Your task to perform on an android device: Go to ESPN.com Image 0: 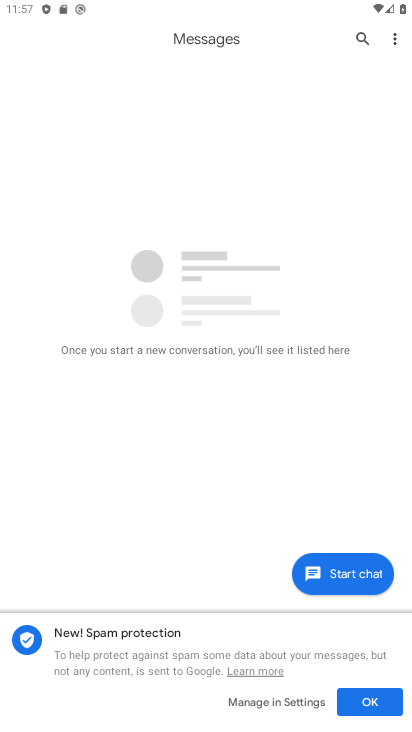
Step 0: press home button
Your task to perform on an android device: Go to ESPN.com Image 1: 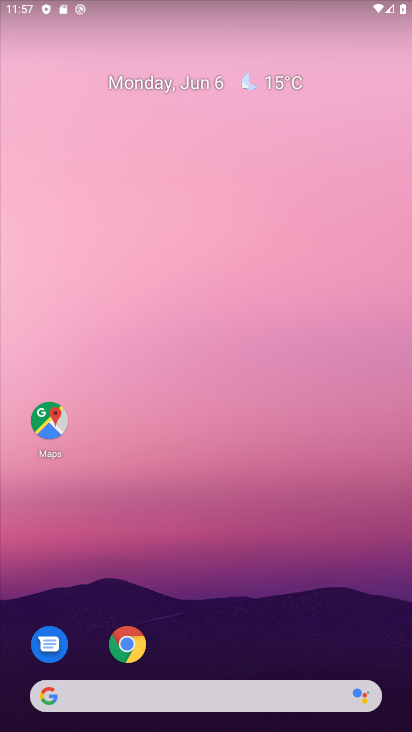
Step 1: drag from (279, 596) to (261, 95)
Your task to perform on an android device: Go to ESPN.com Image 2: 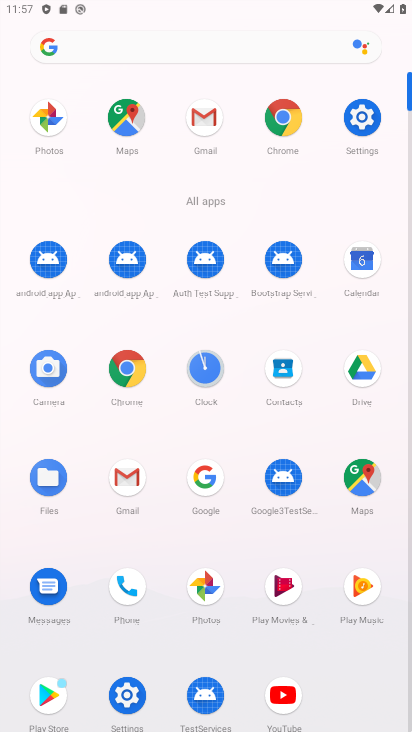
Step 2: click (284, 123)
Your task to perform on an android device: Go to ESPN.com Image 3: 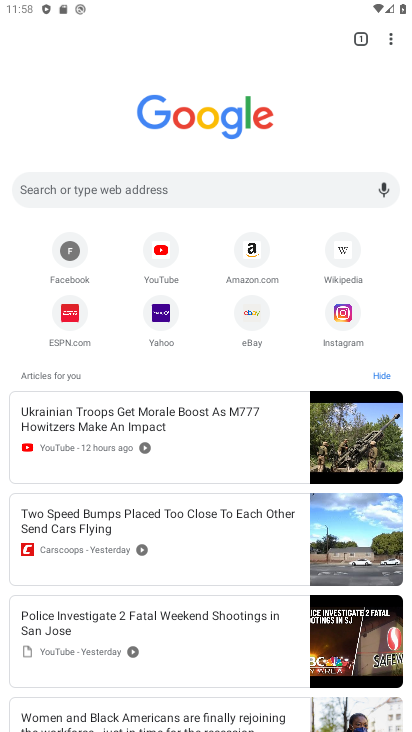
Step 3: click (66, 329)
Your task to perform on an android device: Go to ESPN.com Image 4: 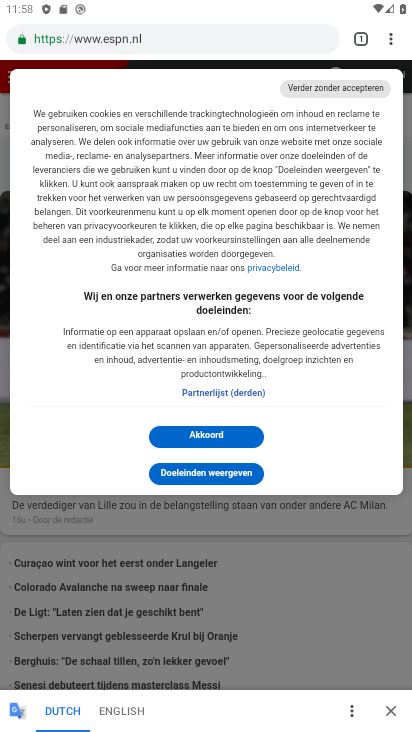
Step 4: task complete